Your task to perform on an android device: Open Google Image 0: 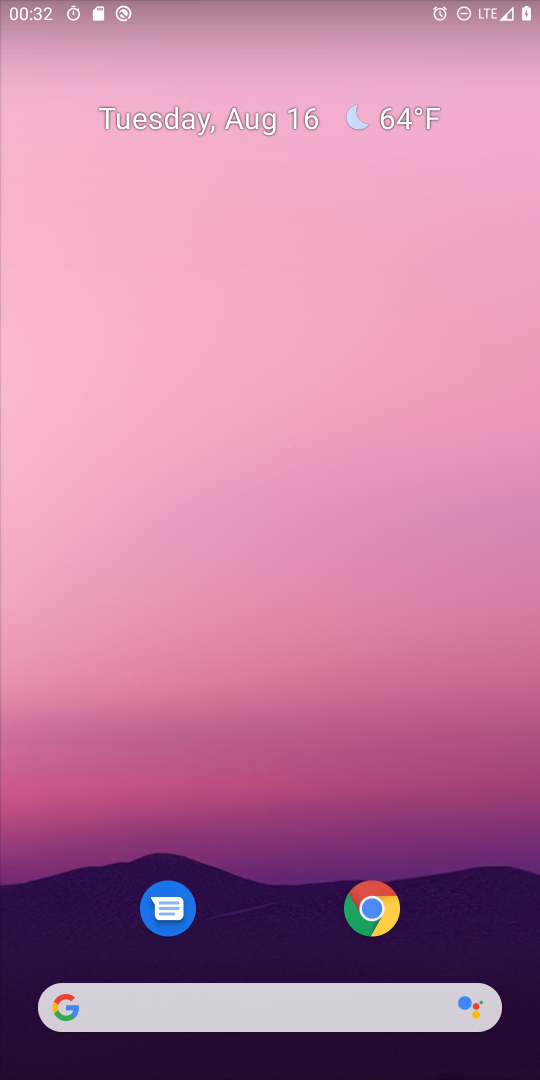
Step 0: click (237, 1005)
Your task to perform on an android device: Open Google Image 1: 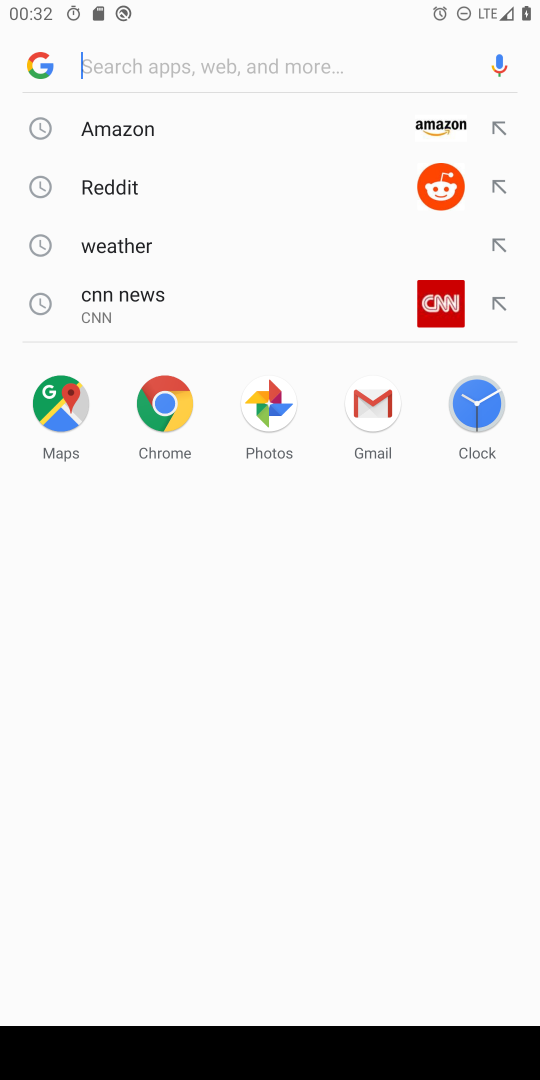
Step 1: task complete